Your task to perform on an android device: Is it going to rain today? Image 0: 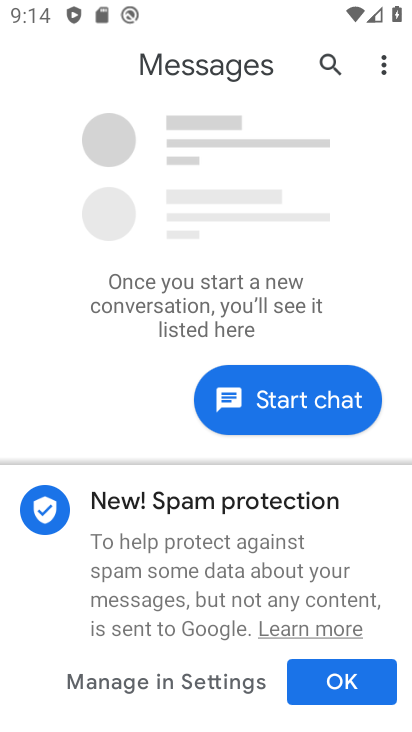
Step 0: press home button
Your task to perform on an android device: Is it going to rain today? Image 1: 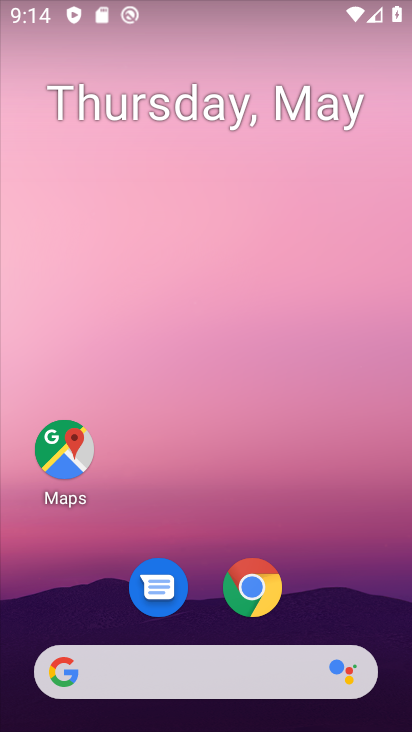
Step 1: click (125, 666)
Your task to perform on an android device: Is it going to rain today? Image 2: 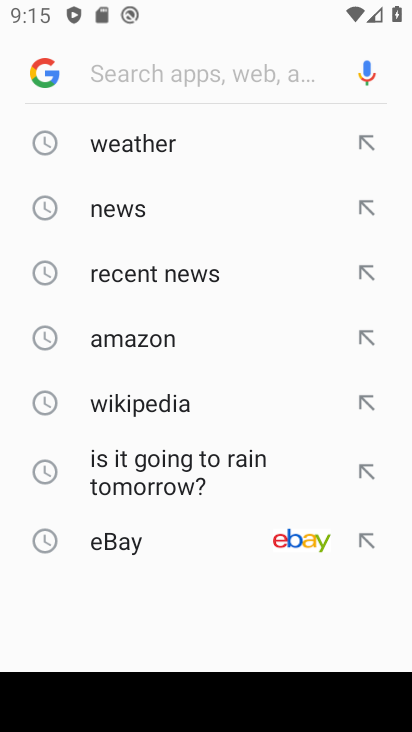
Step 2: click (133, 143)
Your task to perform on an android device: Is it going to rain today? Image 3: 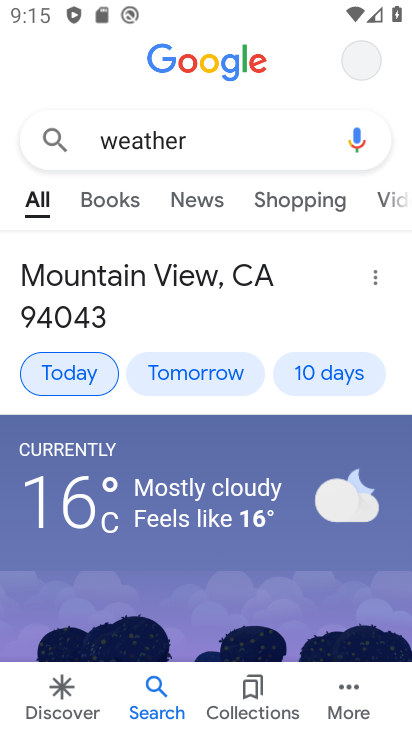
Step 3: task complete